Your task to perform on an android device: Open settings Image 0: 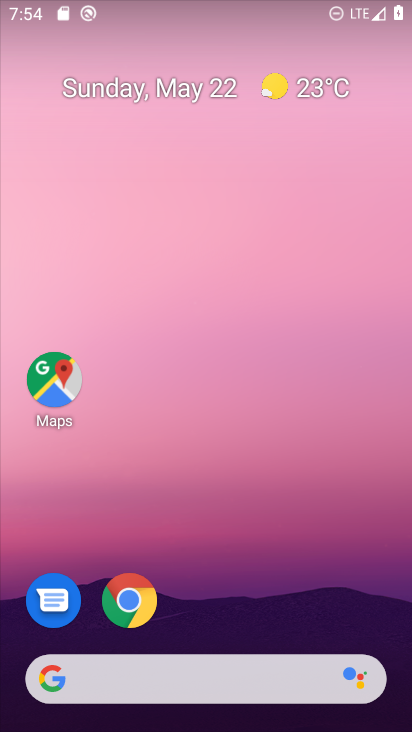
Step 0: drag from (317, 621) to (330, 36)
Your task to perform on an android device: Open settings Image 1: 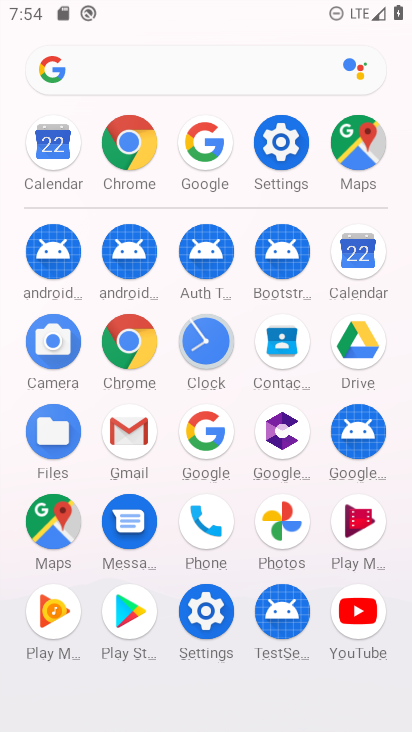
Step 1: click (277, 141)
Your task to perform on an android device: Open settings Image 2: 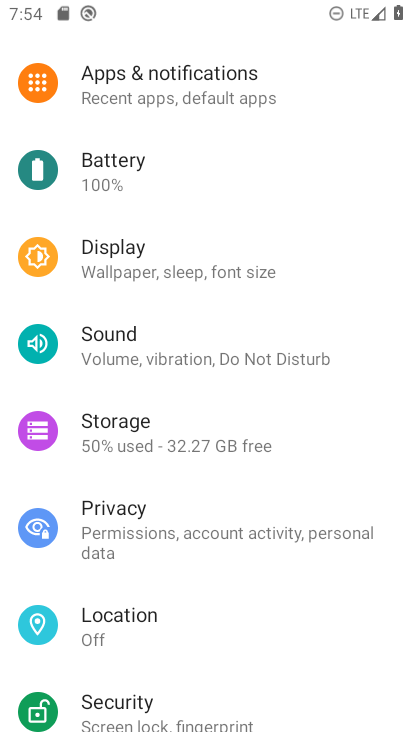
Step 2: task complete